Your task to perform on an android device: turn notification dots on Image 0: 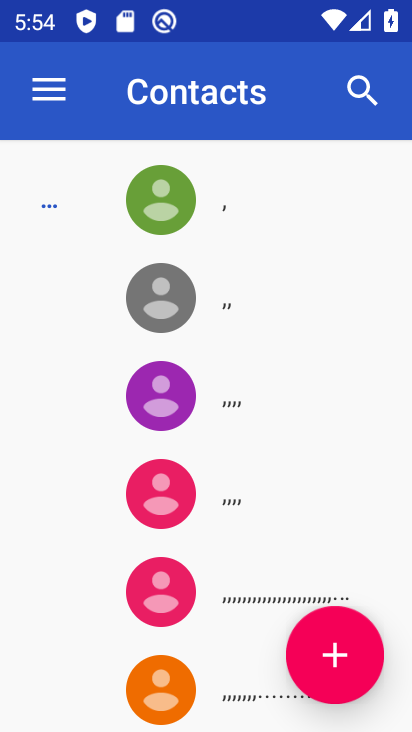
Step 0: press home button
Your task to perform on an android device: turn notification dots on Image 1: 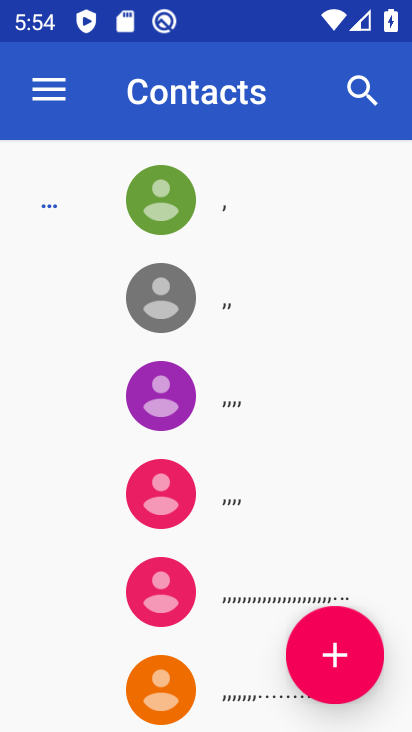
Step 1: press home button
Your task to perform on an android device: turn notification dots on Image 2: 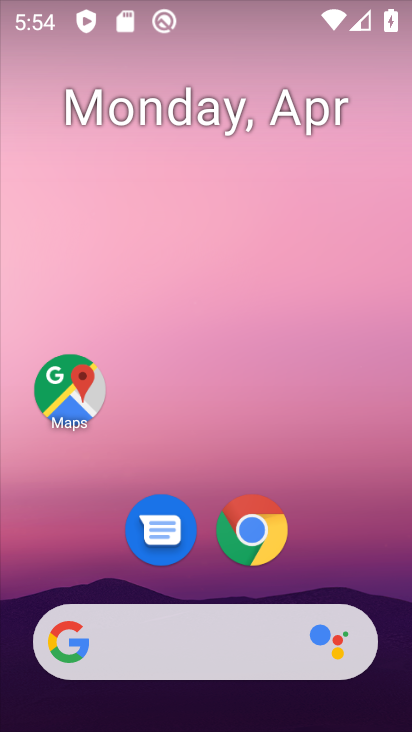
Step 2: drag from (203, 581) to (224, 27)
Your task to perform on an android device: turn notification dots on Image 3: 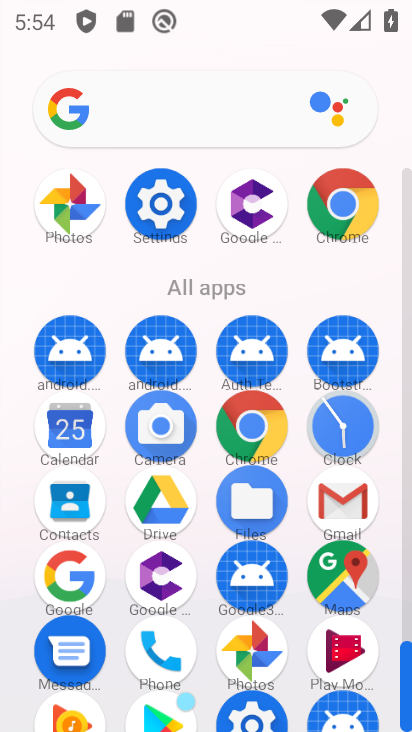
Step 3: click (251, 702)
Your task to perform on an android device: turn notification dots on Image 4: 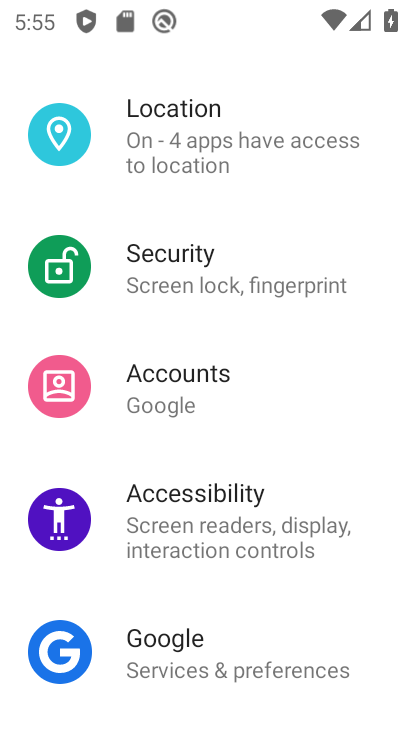
Step 4: drag from (211, 158) to (300, 708)
Your task to perform on an android device: turn notification dots on Image 5: 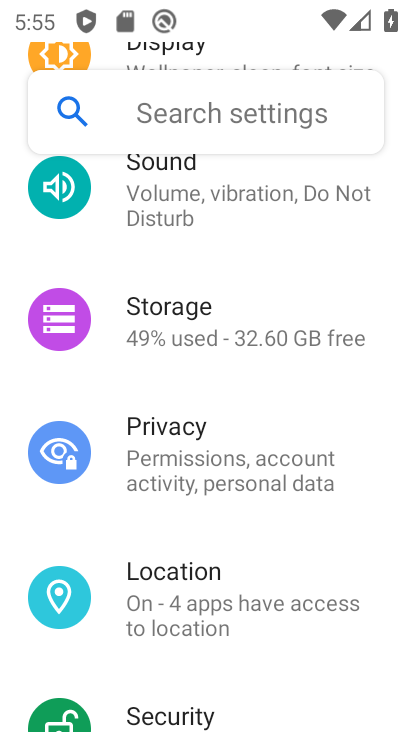
Step 5: drag from (242, 201) to (240, 719)
Your task to perform on an android device: turn notification dots on Image 6: 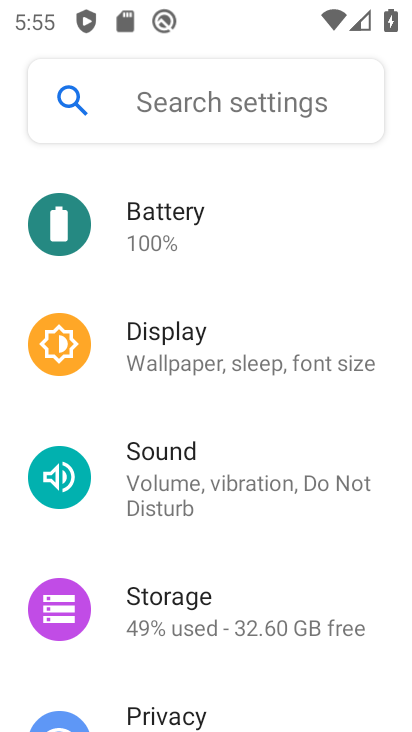
Step 6: drag from (216, 239) to (234, 716)
Your task to perform on an android device: turn notification dots on Image 7: 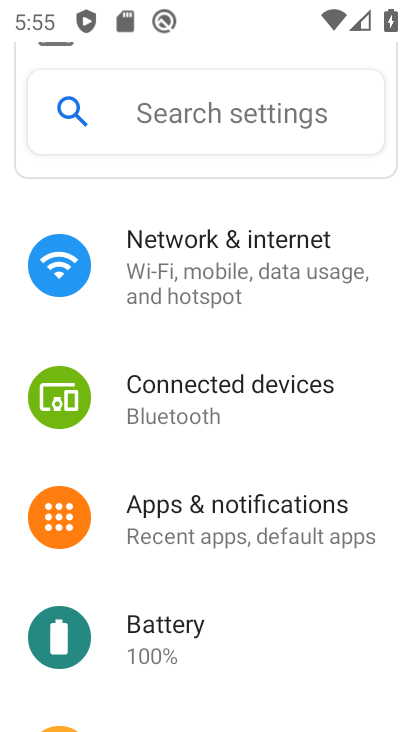
Step 7: click (232, 525)
Your task to perform on an android device: turn notification dots on Image 8: 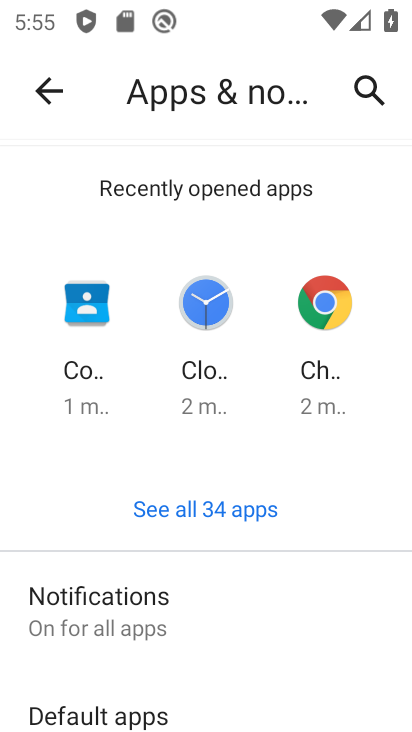
Step 8: click (189, 604)
Your task to perform on an android device: turn notification dots on Image 9: 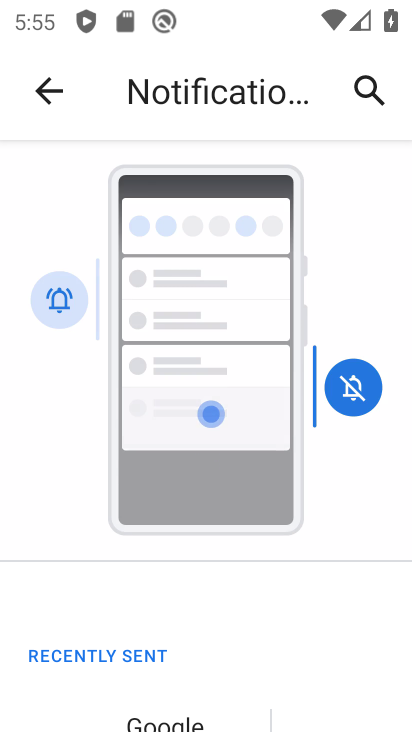
Step 9: drag from (226, 668) to (212, 281)
Your task to perform on an android device: turn notification dots on Image 10: 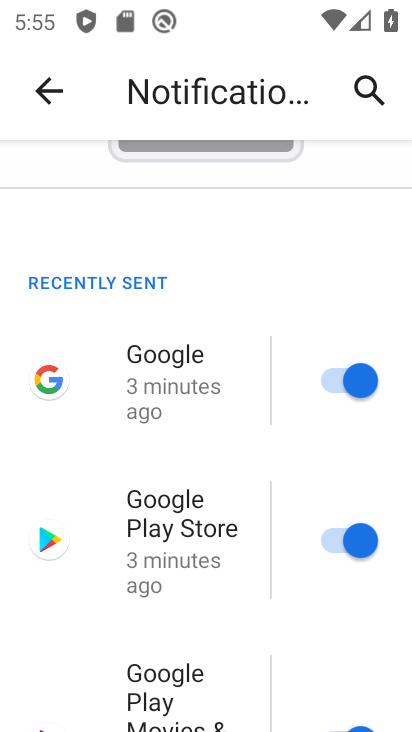
Step 10: drag from (240, 697) to (216, 308)
Your task to perform on an android device: turn notification dots on Image 11: 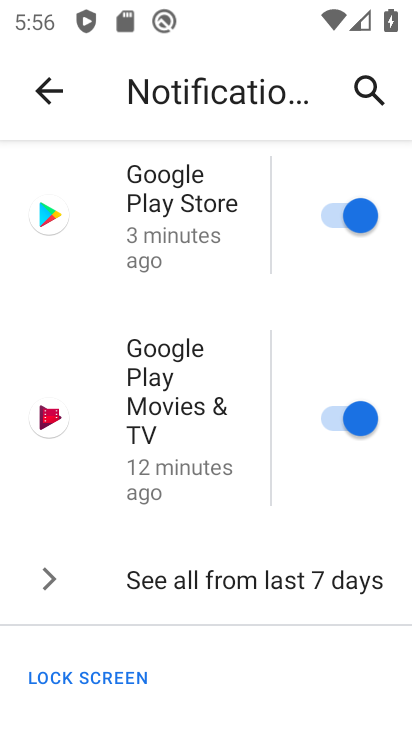
Step 11: drag from (214, 650) to (217, 191)
Your task to perform on an android device: turn notification dots on Image 12: 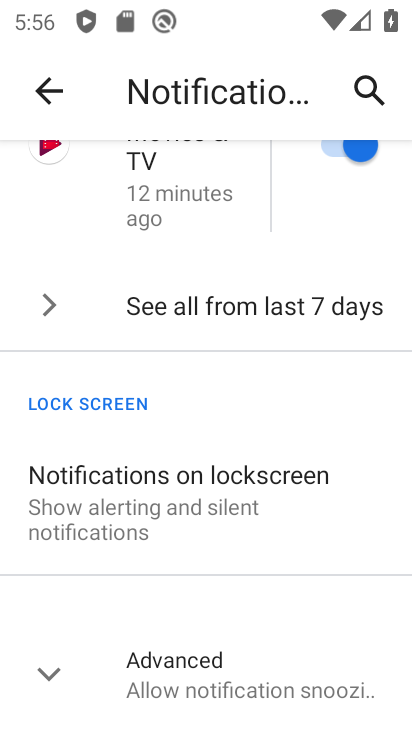
Step 12: click (45, 671)
Your task to perform on an android device: turn notification dots on Image 13: 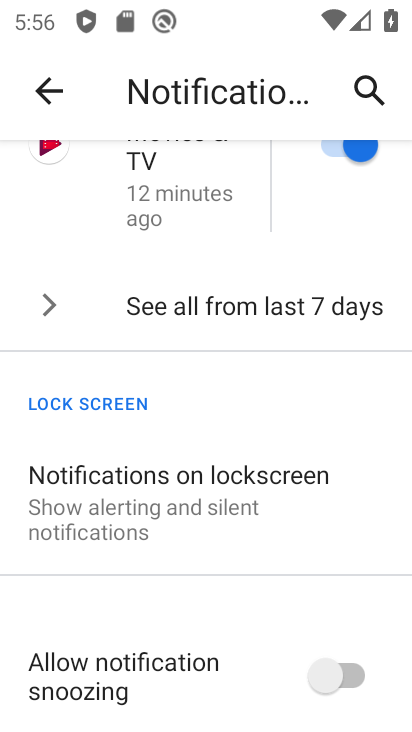
Step 13: task complete